Your task to perform on an android device: When is my next appointment? Image 0: 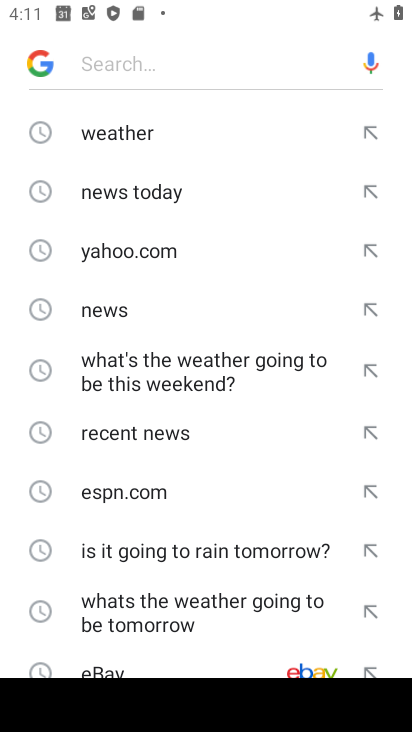
Step 0: press home button
Your task to perform on an android device: When is my next appointment? Image 1: 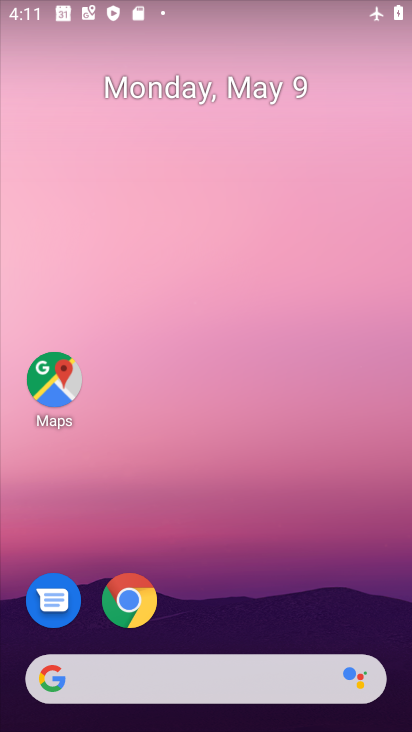
Step 1: drag from (245, 683) to (242, 50)
Your task to perform on an android device: When is my next appointment? Image 2: 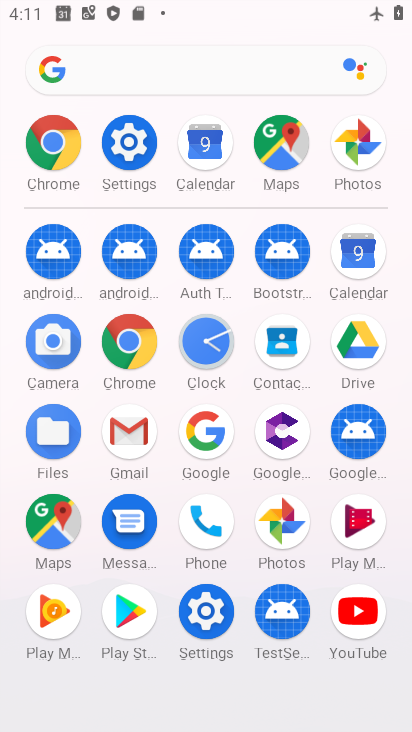
Step 2: click (354, 249)
Your task to perform on an android device: When is my next appointment? Image 3: 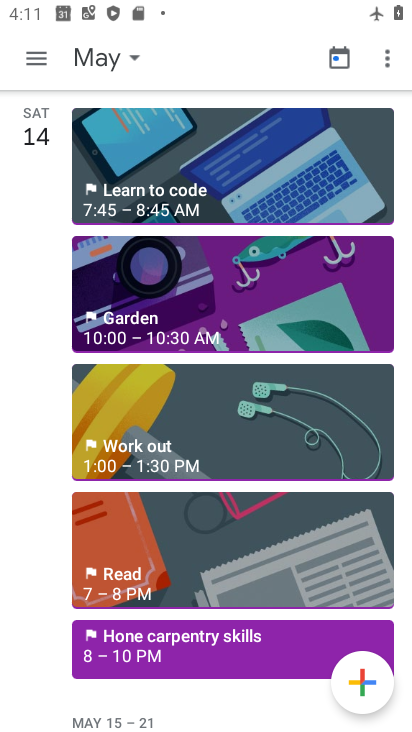
Step 3: click (130, 53)
Your task to perform on an android device: When is my next appointment? Image 4: 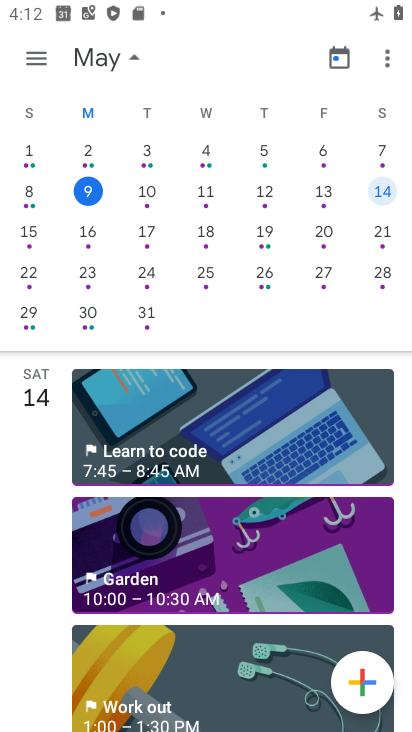
Step 4: click (150, 198)
Your task to perform on an android device: When is my next appointment? Image 5: 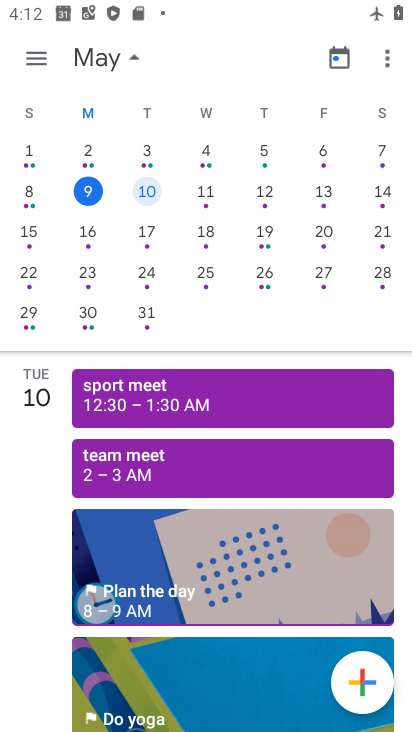
Step 5: task complete